Your task to perform on an android device: open a bookmark in the chrome app Image 0: 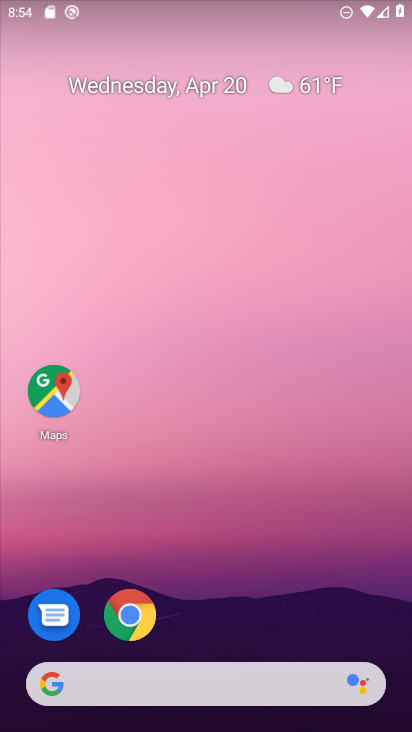
Step 0: drag from (275, 473) to (312, 236)
Your task to perform on an android device: open a bookmark in the chrome app Image 1: 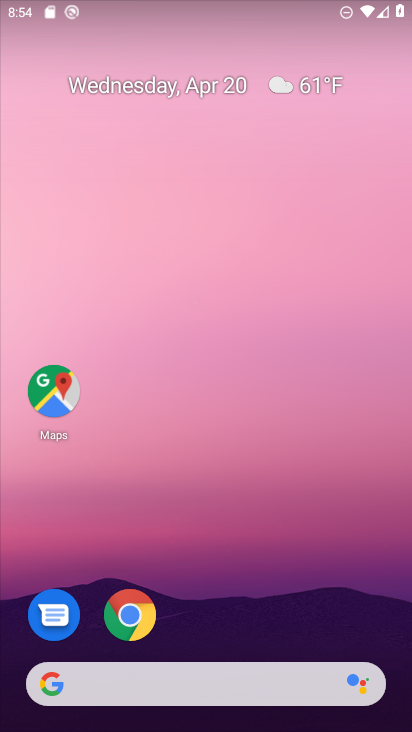
Step 1: drag from (181, 454) to (147, 232)
Your task to perform on an android device: open a bookmark in the chrome app Image 2: 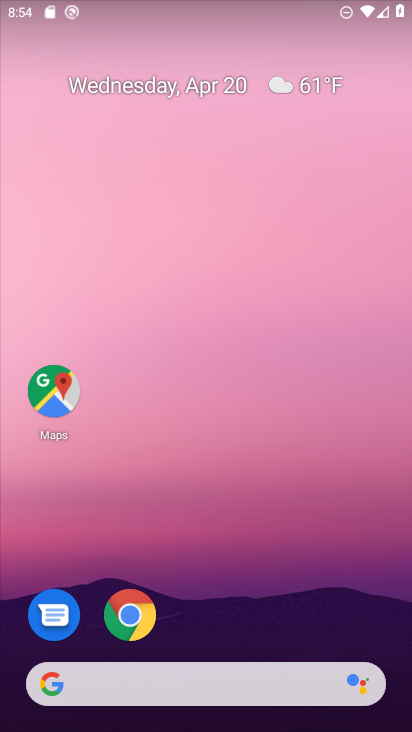
Step 2: drag from (236, 628) to (240, 312)
Your task to perform on an android device: open a bookmark in the chrome app Image 3: 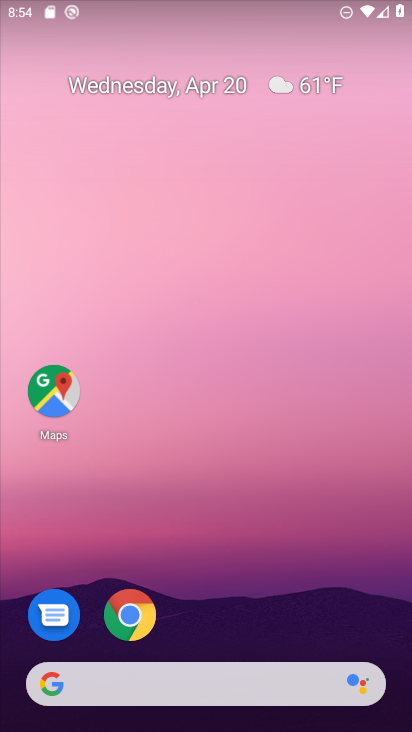
Step 3: drag from (268, 423) to (261, 223)
Your task to perform on an android device: open a bookmark in the chrome app Image 4: 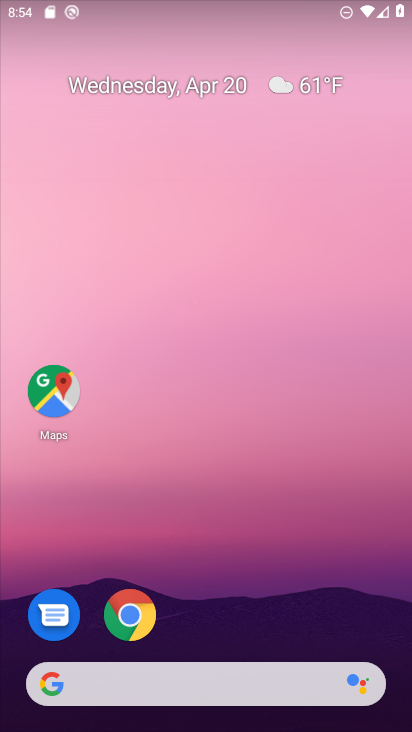
Step 4: drag from (195, 591) to (181, 247)
Your task to perform on an android device: open a bookmark in the chrome app Image 5: 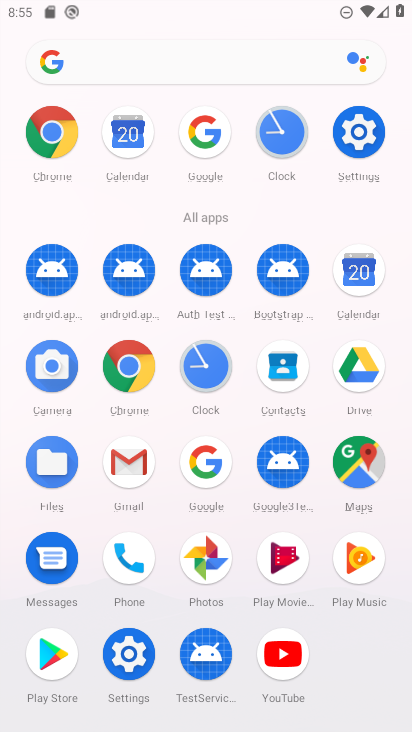
Step 5: click (133, 372)
Your task to perform on an android device: open a bookmark in the chrome app Image 6: 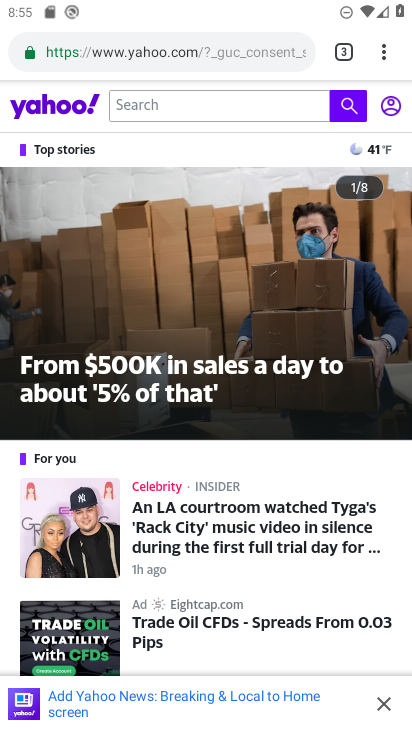
Step 6: click (380, 55)
Your task to perform on an android device: open a bookmark in the chrome app Image 7: 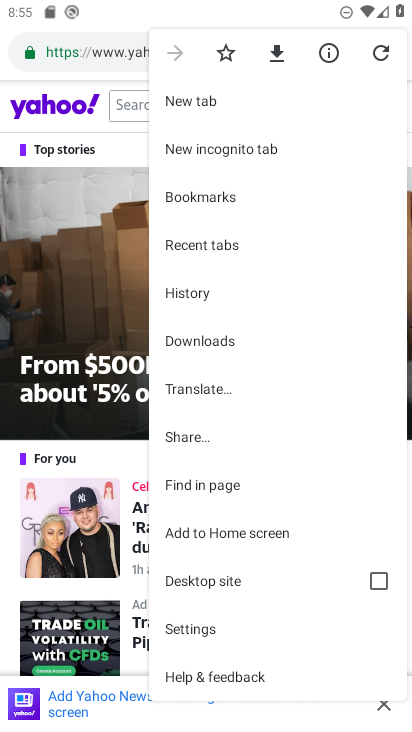
Step 7: click (239, 187)
Your task to perform on an android device: open a bookmark in the chrome app Image 8: 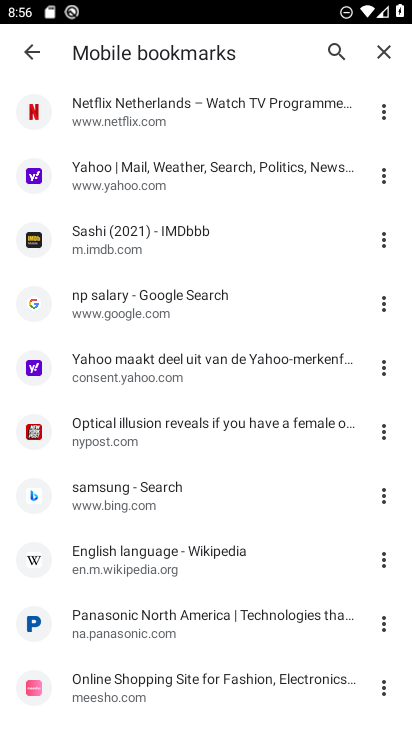
Step 8: task complete